Your task to perform on an android device: What's the weather? Image 0: 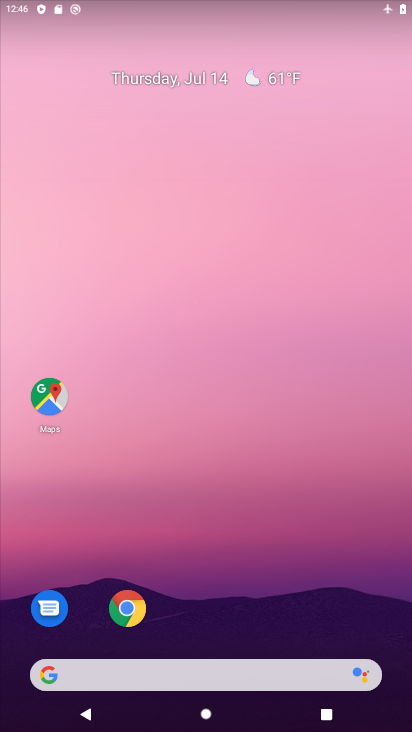
Step 0: click (236, 672)
Your task to perform on an android device: What's the weather? Image 1: 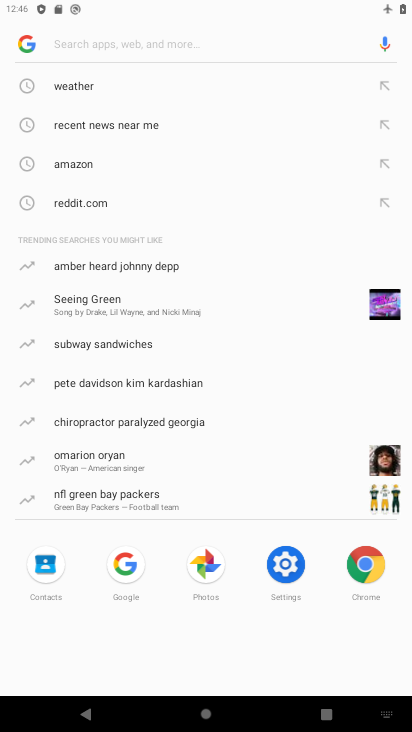
Step 1: type "weather"
Your task to perform on an android device: What's the weather? Image 2: 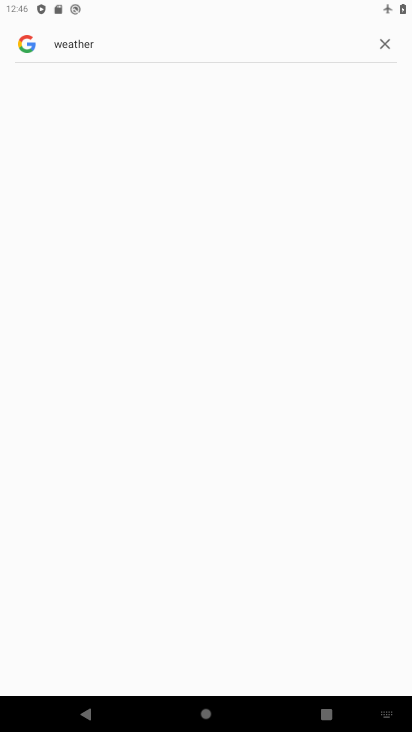
Step 2: task complete